Your task to perform on an android device: What's the news in Sri Lanka? Image 0: 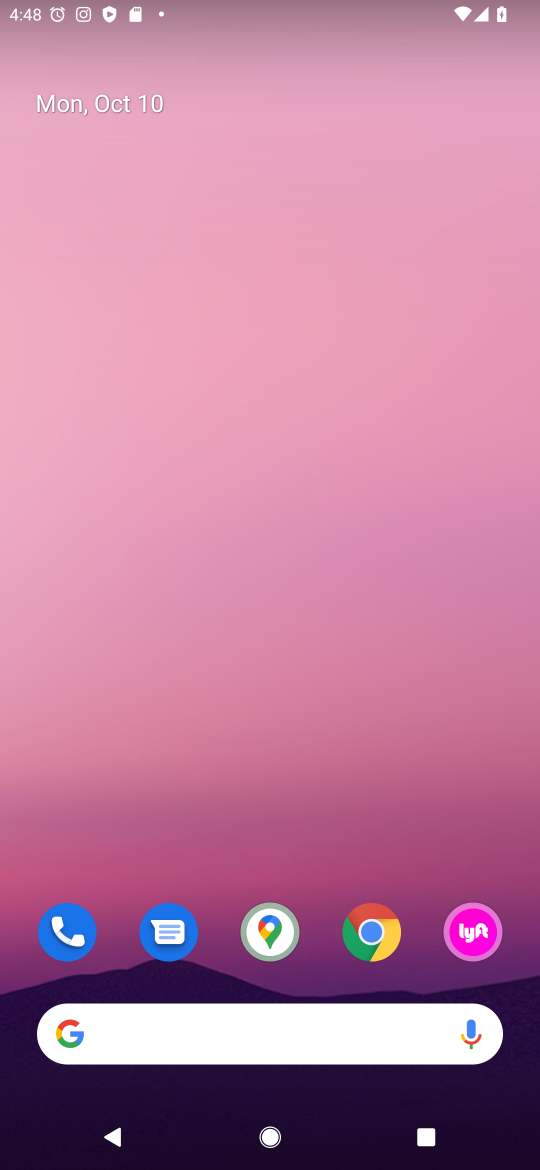
Step 0: click (312, 1043)
Your task to perform on an android device: What's the news in Sri Lanka? Image 1: 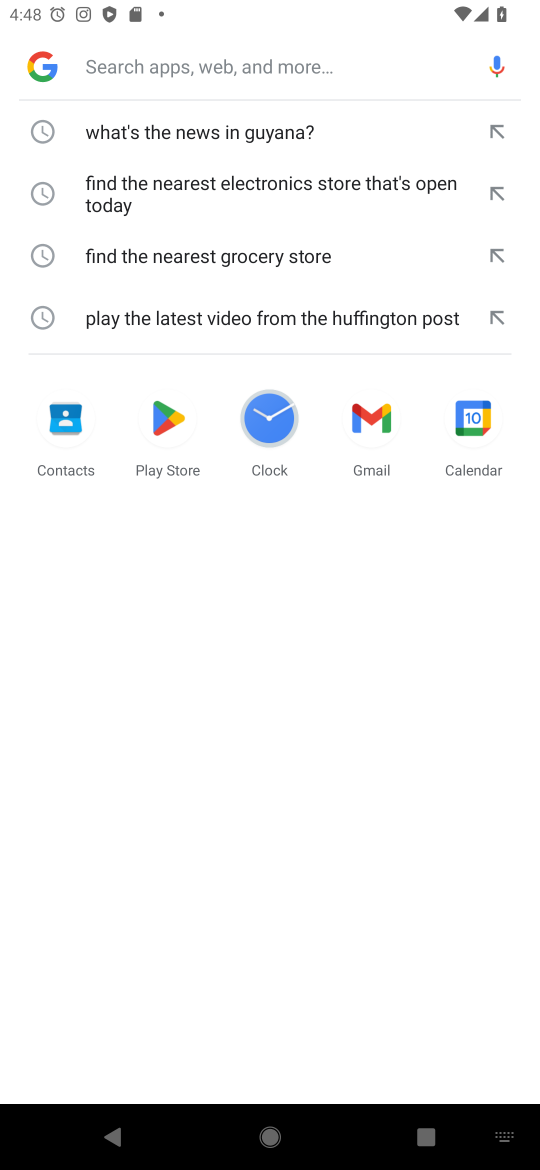
Step 1: press enter
Your task to perform on an android device: What's the news in Sri Lanka? Image 2: 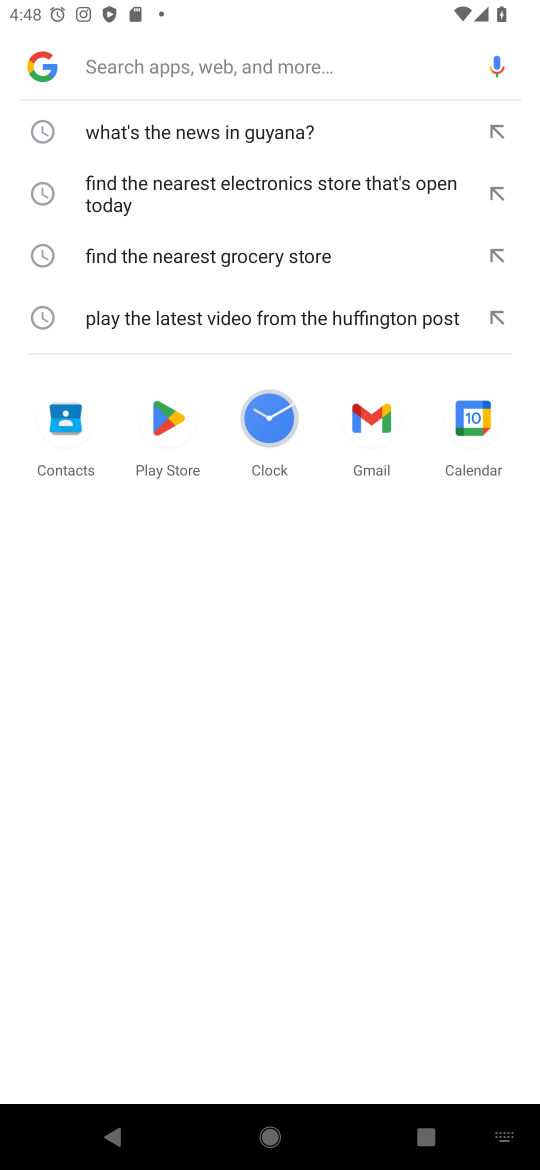
Step 2: type "What's the news in Sri Lanka?"
Your task to perform on an android device: What's the news in Sri Lanka? Image 3: 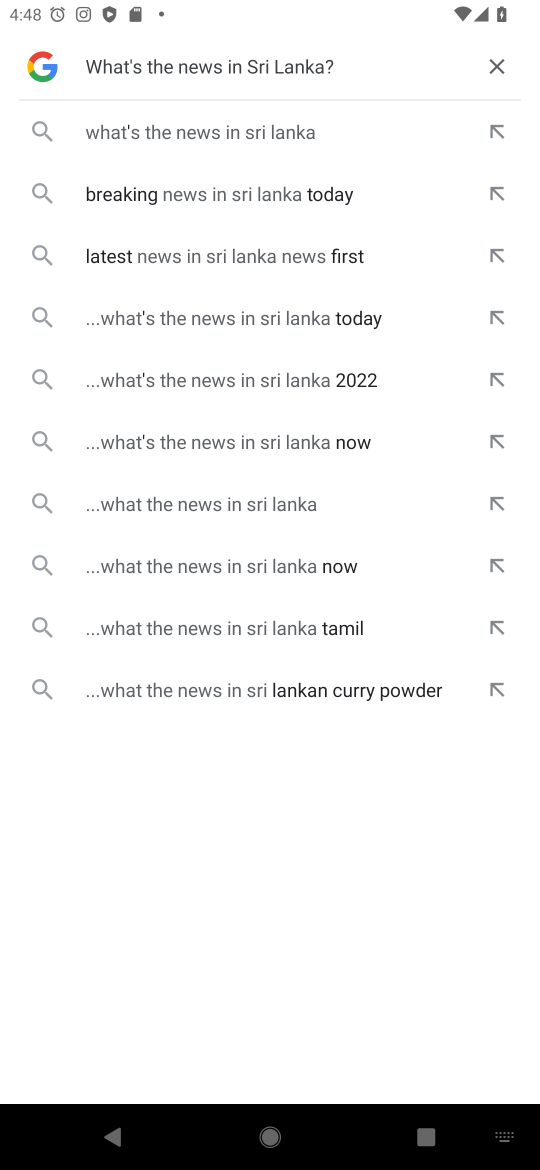
Step 3: press enter
Your task to perform on an android device: What's the news in Sri Lanka? Image 4: 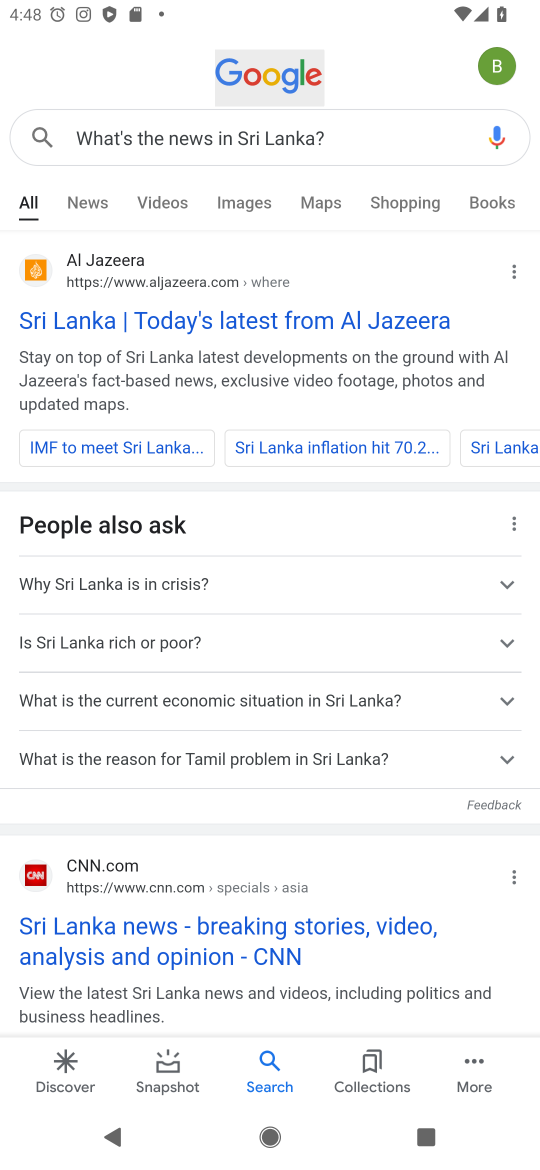
Step 4: click (313, 933)
Your task to perform on an android device: What's the news in Sri Lanka? Image 5: 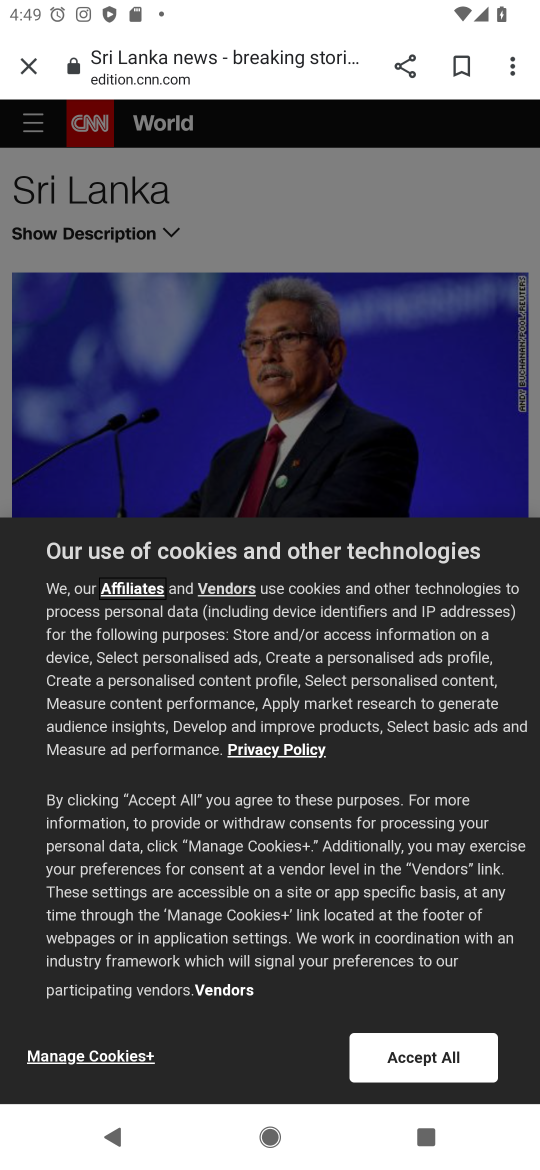
Step 5: click (461, 1052)
Your task to perform on an android device: What's the news in Sri Lanka? Image 6: 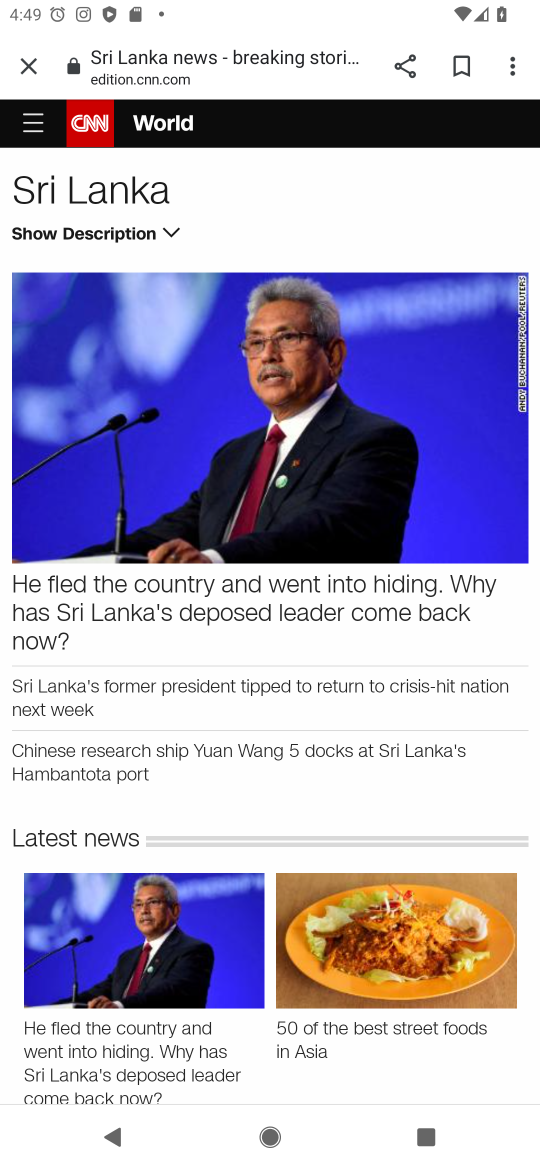
Step 6: task complete